Your task to perform on an android device: Open Wikipedia Image 0: 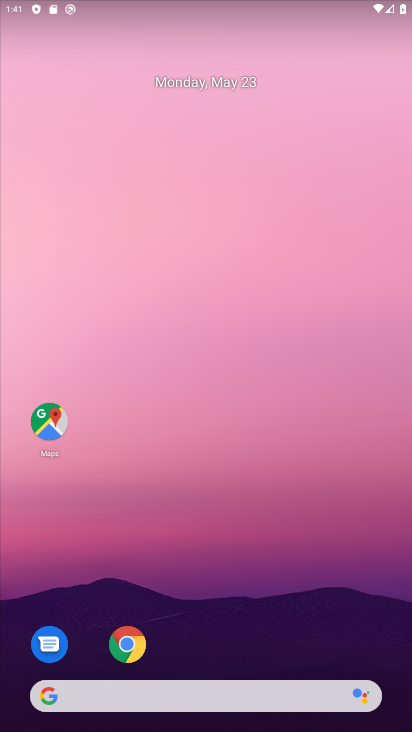
Step 0: drag from (322, 534) to (238, 106)
Your task to perform on an android device: Open Wikipedia Image 1: 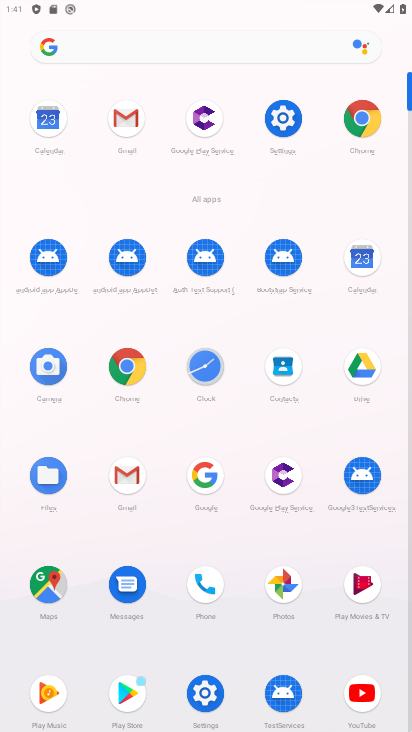
Step 1: click (362, 122)
Your task to perform on an android device: Open Wikipedia Image 2: 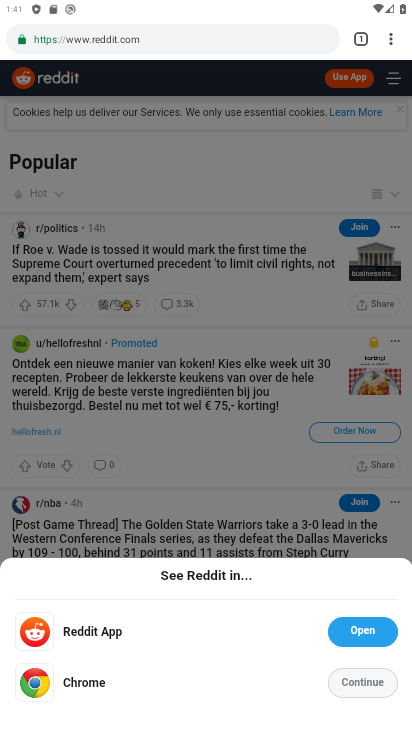
Step 2: click (176, 39)
Your task to perform on an android device: Open Wikipedia Image 3: 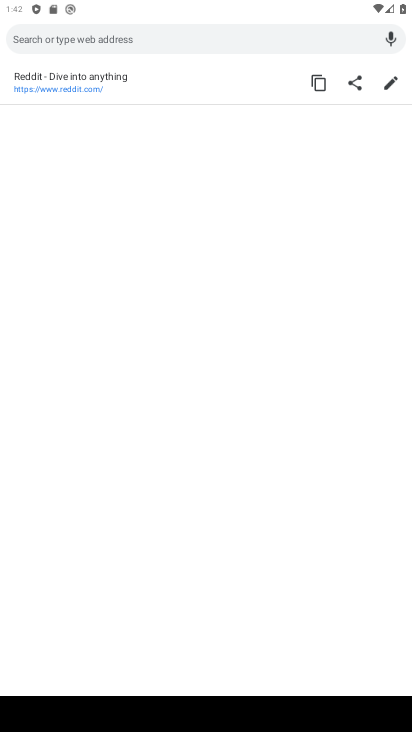
Step 3: type "wikipedia"
Your task to perform on an android device: Open Wikipedia Image 4: 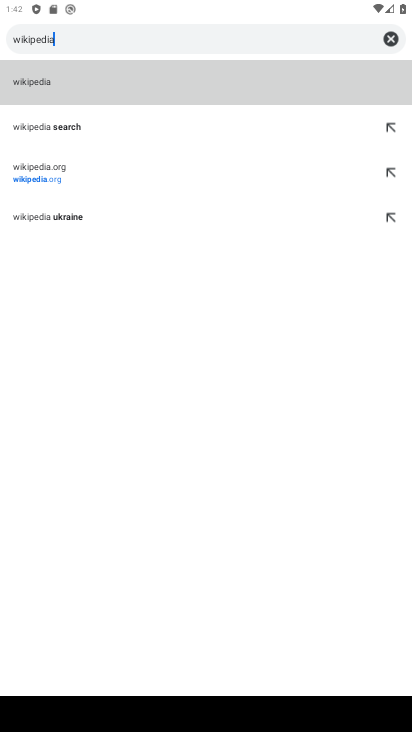
Step 4: click (65, 131)
Your task to perform on an android device: Open Wikipedia Image 5: 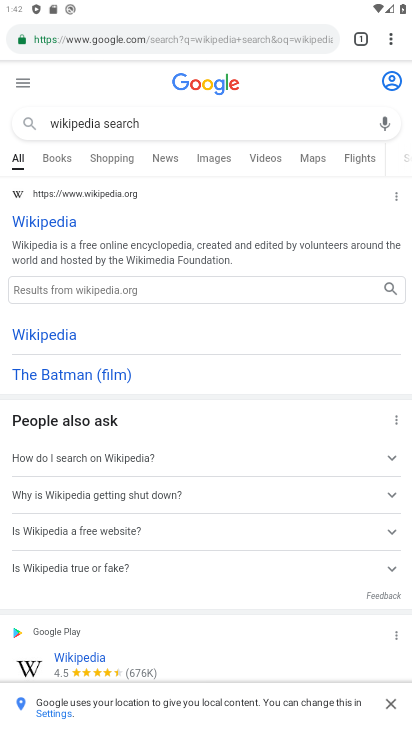
Step 5: click (56, 215)
Your task to perform on an android device: Open Wikipedia Image 6: 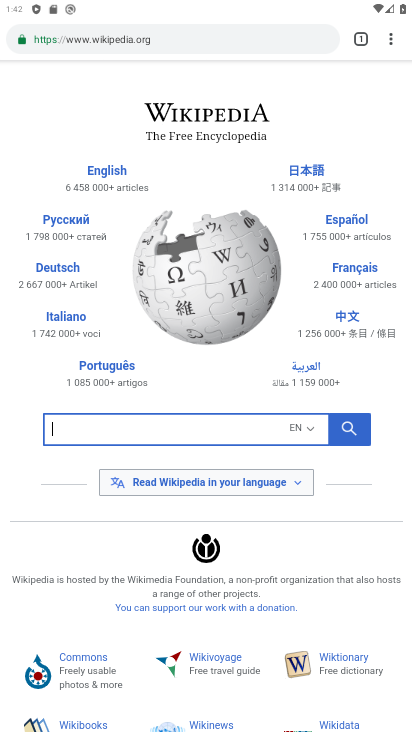
Step 6: task complete